Your task to perform on an android device: turn off wifi Image 0: 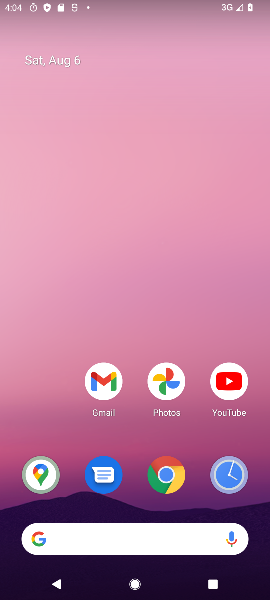
Step 0: drag from (31, 567) to (259, 104)
Your task to perform on an android device: turn off wifi Image 1: 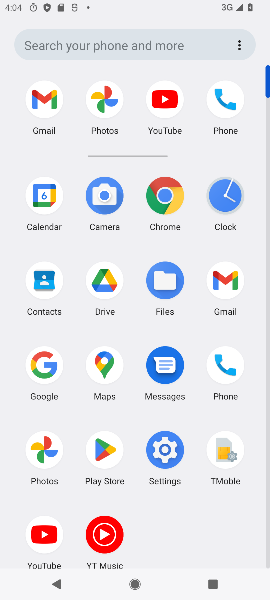
Step 1: click (160, 459)
Your task to perform on an android device: turn off wifi Image 2: 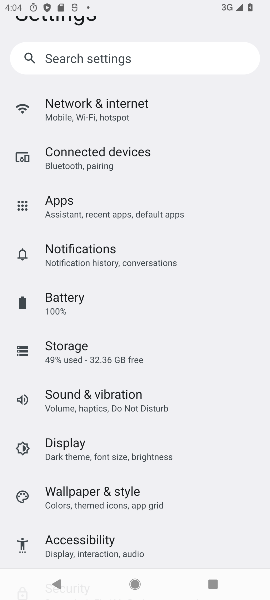
Step 2: click (121, 101)
Your task to perform on an android device: turn off wifi Image 3: 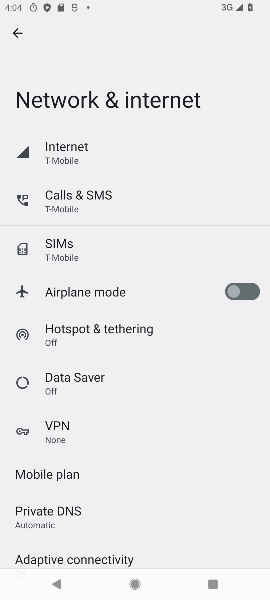
Step 3: click (85, 150)
Your task to perform on an android device: turn off wifi Image 4: 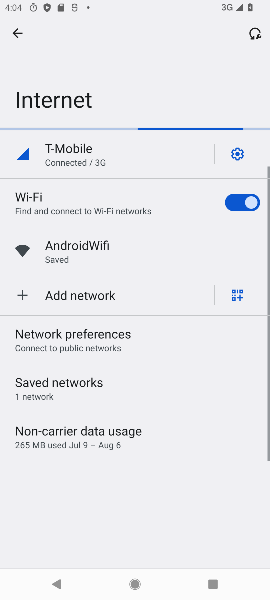
Step 4: click (85, 150)
Your task to perform on an android device: turn off wifi Image 5: 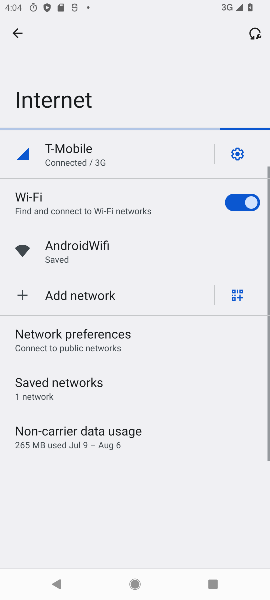
Step 5: click (85, 150)
Your task to perform on an android device: turn off wifi Image 6: 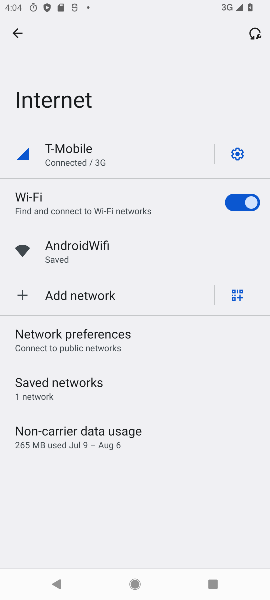
Step 6: click (236, 199)
Your task to perform on an android device: turn off wifi Image 7: 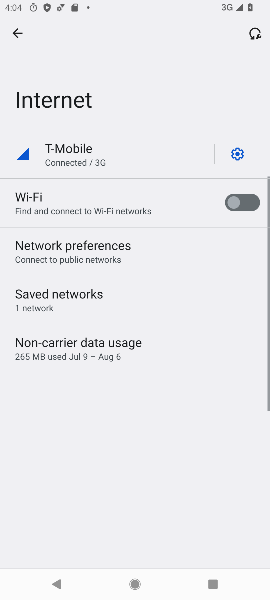
Step 7: task complete